Your task to perform on an android device: Go to Android settings Image 0: 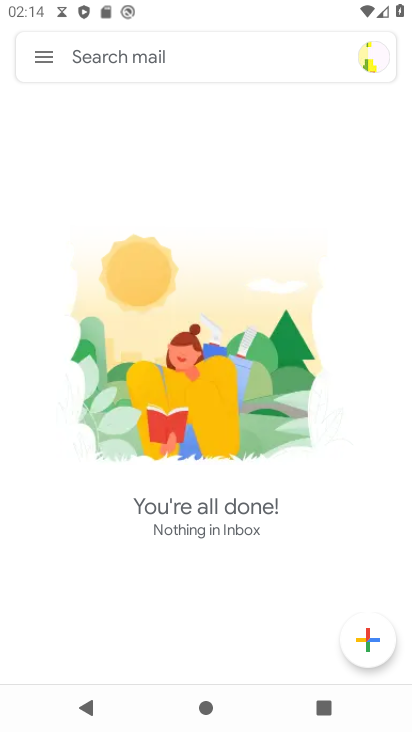
Step 0: press home button
Your task to perform on an android device: Go to Android settings Image 1: 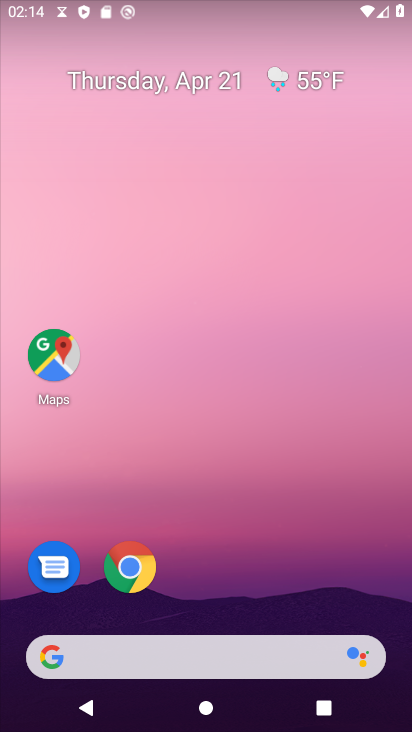
Step 1: drag from (150, 653) to (275, 209)
Your task to perform on an android device: Go to Android settings Image 2: 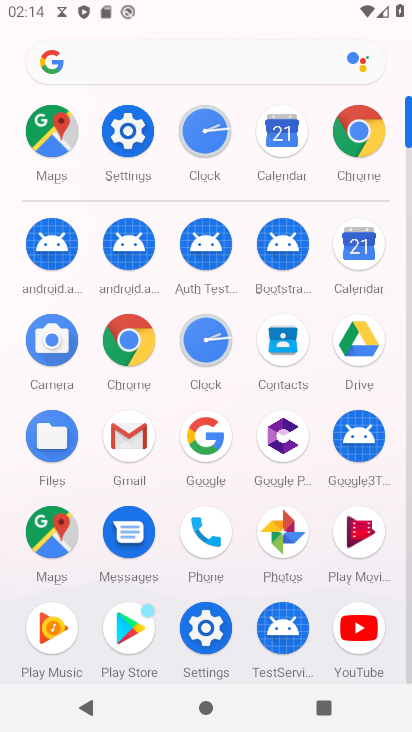
Step 2: click (136, 134)
Your task to perform on an android device: Go to Android settings Image 3: 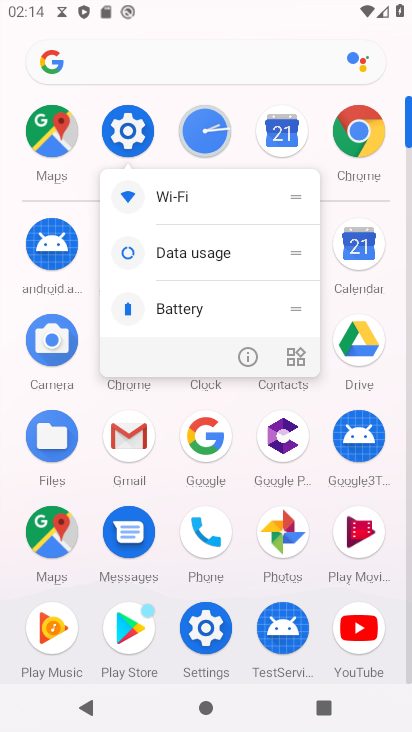
Step 3: click (124, 136)
Your task to perform on an android device: Go to Android settings Image 4: 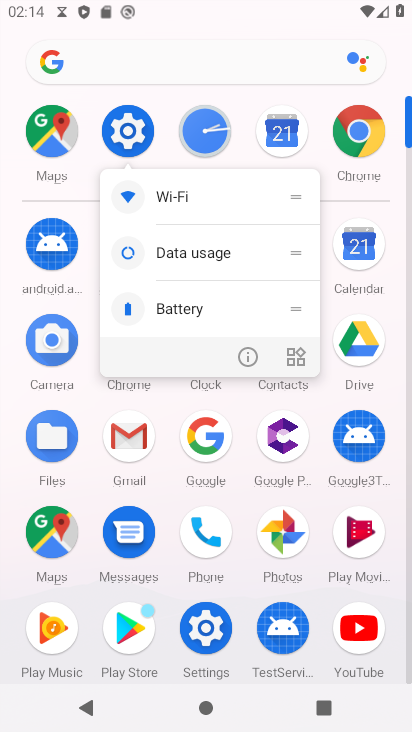
Step 4: click (130, 128)
Your task to perform on an android device: Go to Android settings Image 5: 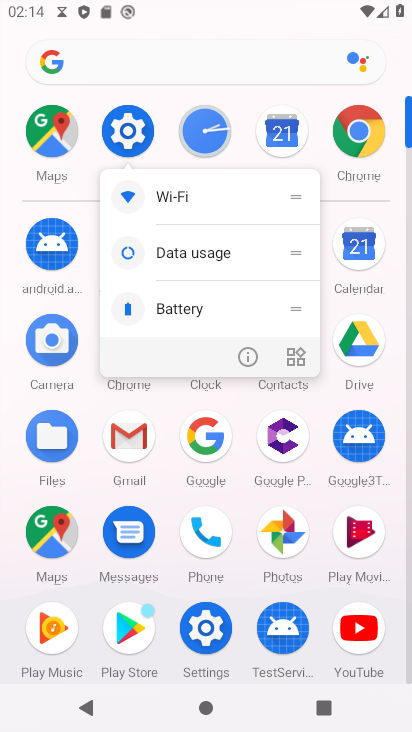
Step 5: click (128, 134)
Your task to perform on an android device: Go to Android settings Image 6: 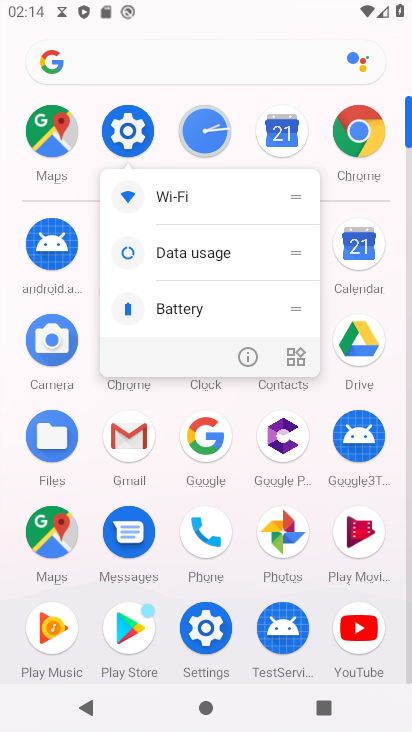
Step 6: click (127, 126)
Your task to perform on an android device: Go to Android settings Image 7: 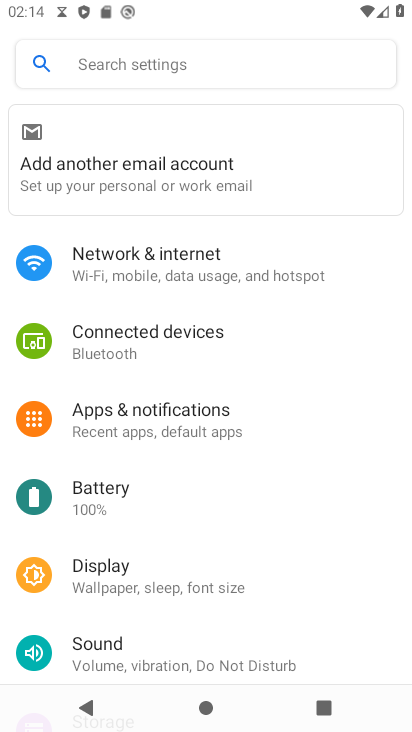
Step 7: task complete